Your task to perform on an android device: change the clock style Image 0: 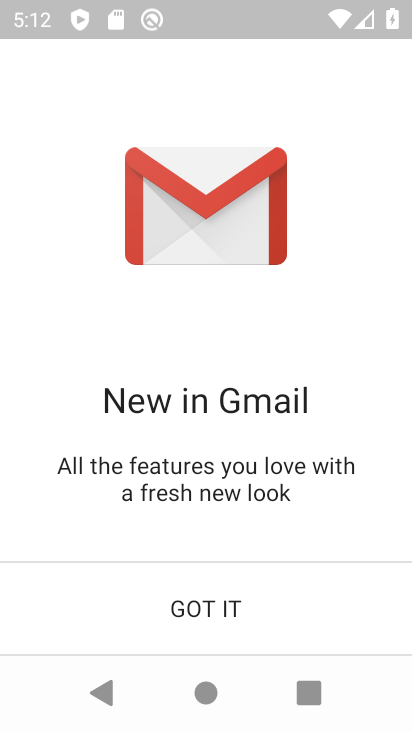
Step 0: press home button
Your task to perform on an android device: change the clock style Image 1: 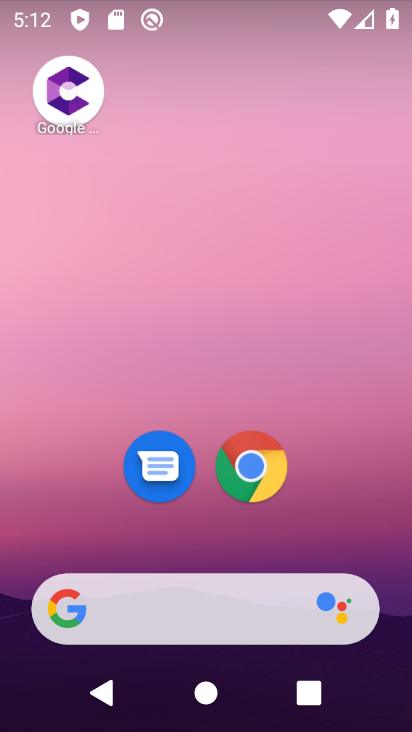
Step 1: drag from (319, 532) to (359, 138)
Your task to perform on an android device: change the clock style Image 2: 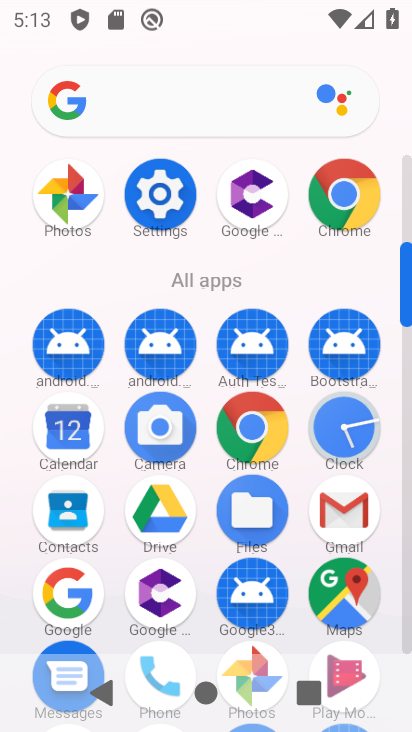
Step 2: click (351, 429)
Your task to perform on an android device: change the clock style Image 3: 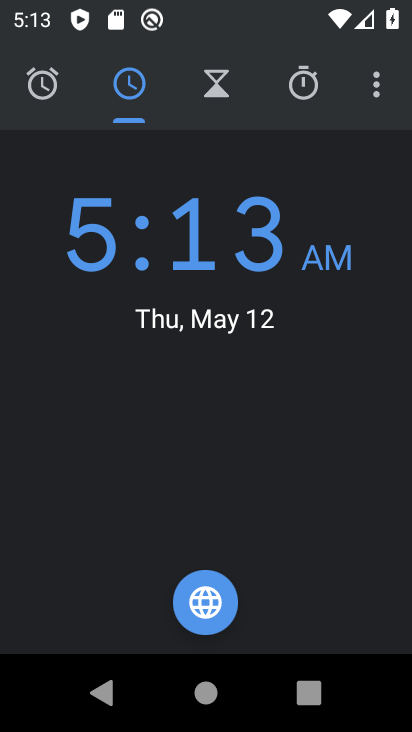
Step 3: click (382, 84)
Your task to perform on an android device: change the clock style Image 4: 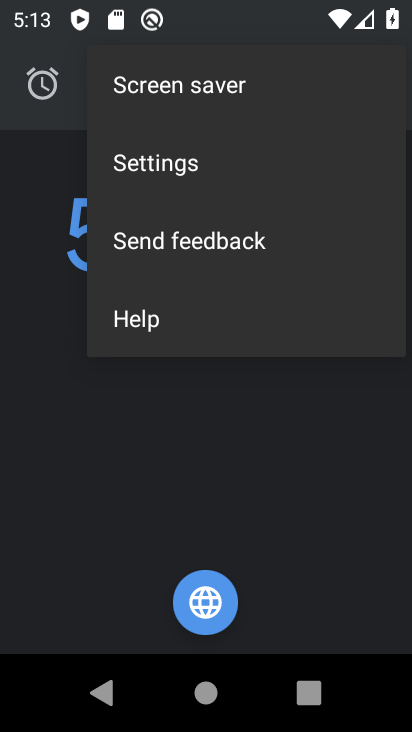
Step 4: click (196, 169)
Your task to perform on an android device: change the clock style Image 5: 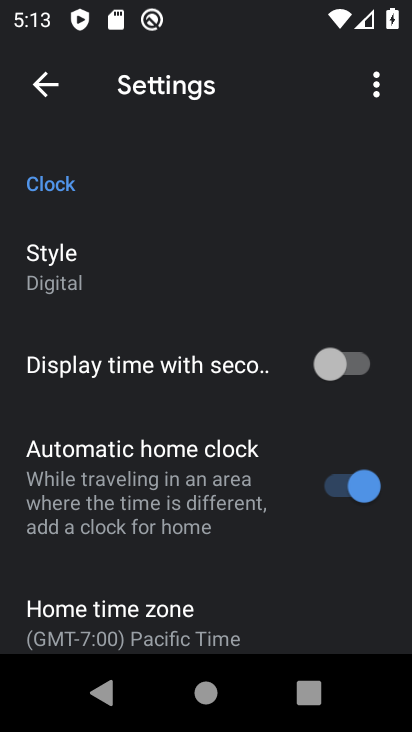
Step 5: click (77, 262)
Your task to perform on an android device: change the clock style Image 6: 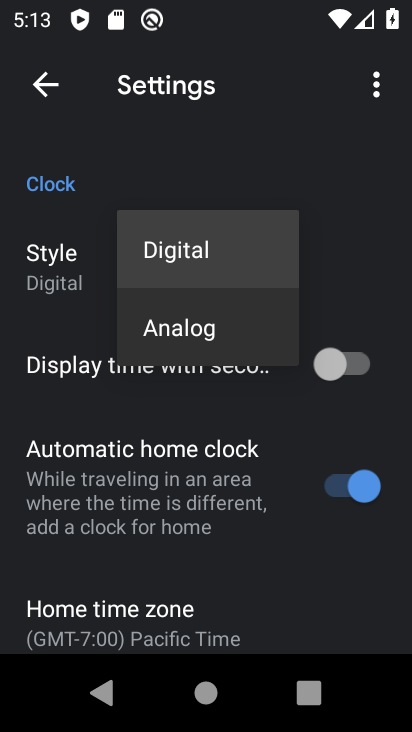
Step 6: click (200, 326)
Your task to perform on an android device: change the clock style Image 7: 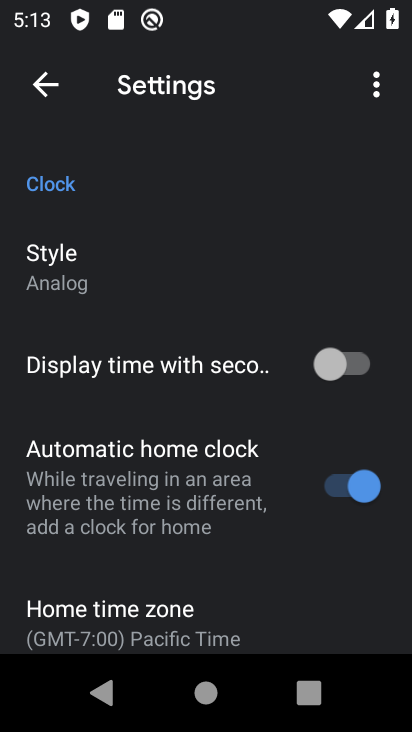
Step 7: task complete